Your task to perform on an android device: set default search engine in the chrome app Image 0: 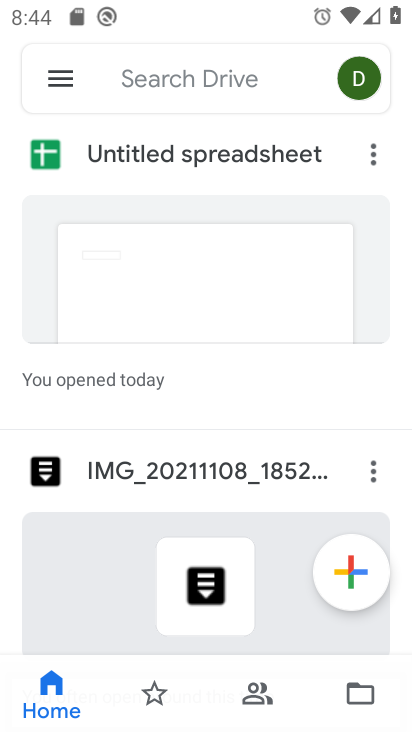
Step 0: press home button
Your task to perform on an android device: set default search engine in the chrome app Image 1: 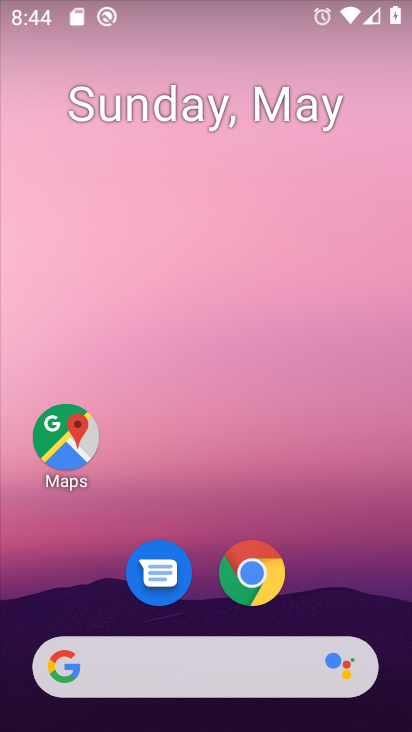
Step 1: drag from (199, 508) to (274, 41)
Your task to perform on an android device: set default search engine in the chrome app Image 2: 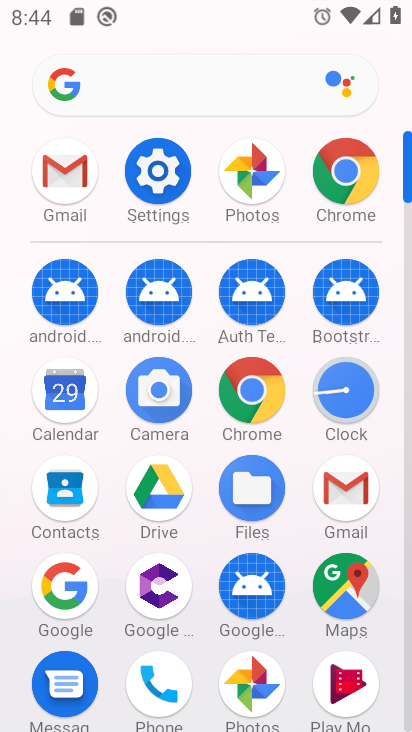
Step 2: click (345, 181)
Your task to perform on an android device: set default search engine in the chrome app Image 3: 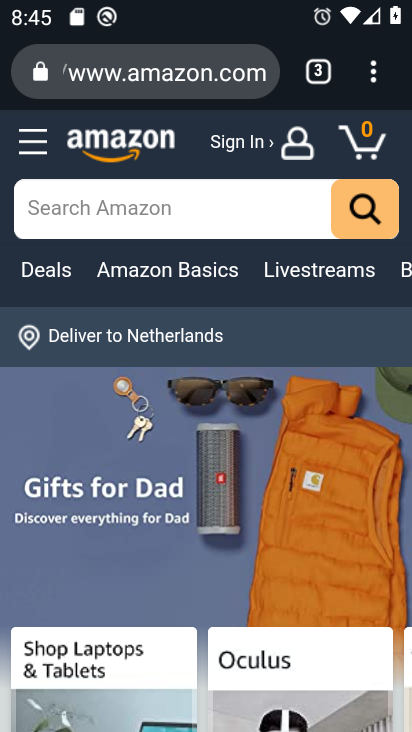
Step 3: click (35, 139)
Your task to perform on an android device: set default search engine in the chrome app Image 4: 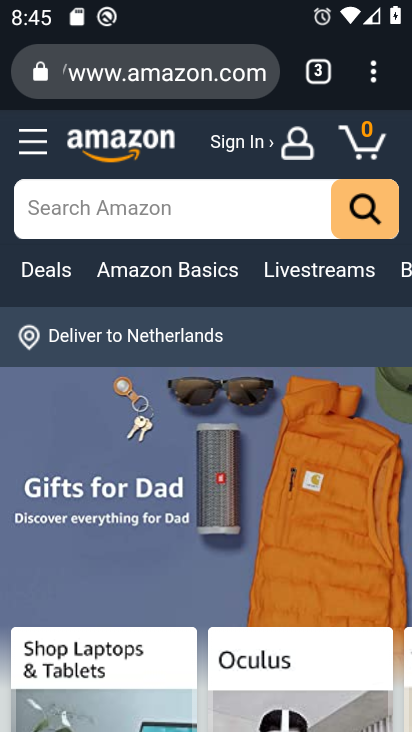
Step 4: click (372, 84)
Your task to perform on an android device: set default search engine in the chrome app Image 5: 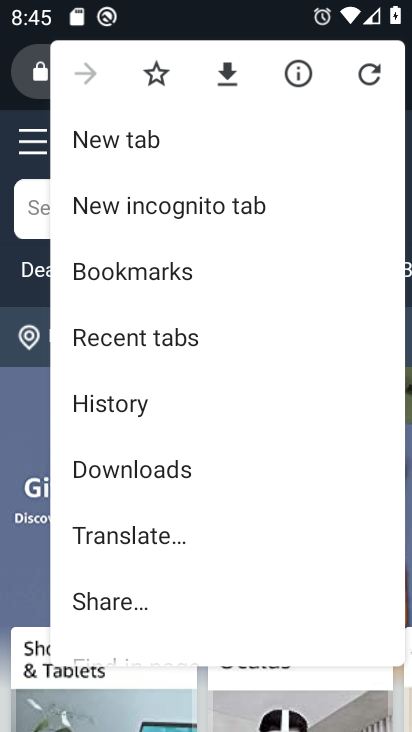
Step 5: drag from (225, 525) to (223, 101)
Your task to perform on an android device: set default search engine in the chrome app Image 6: 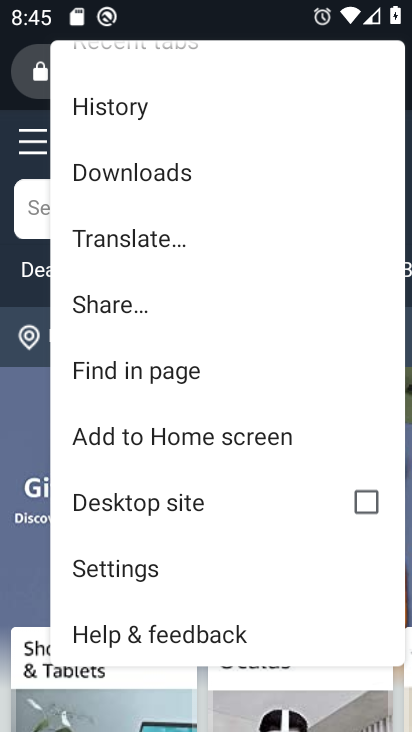
Step 6: click (137, 573)
Your task to perform on an android device: set default search engine in the chrome app Image 7: 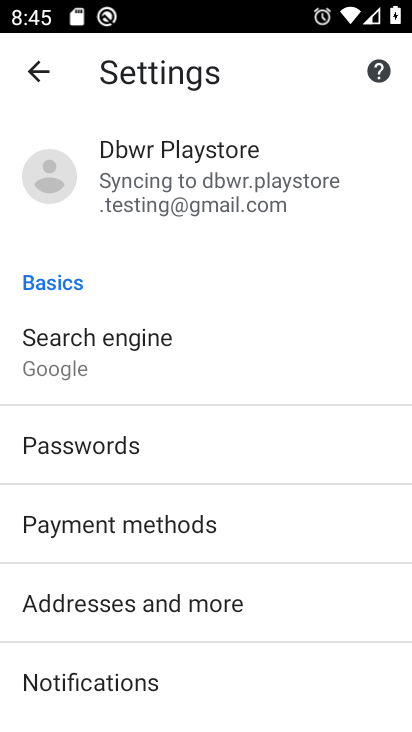
Step 7: drag from (191, 645) to (212, 192)
Your task to perform on an android device: set default search engine in the chrome app Image 8: 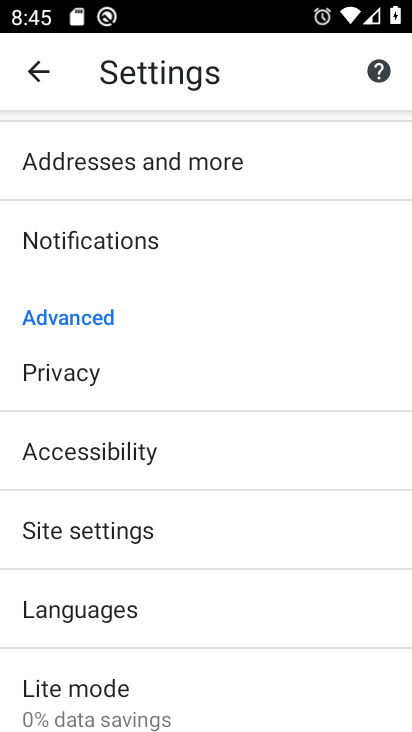
Step 8: drag from (207, 352) to (164, 731)
Your task to perform on an android device: set default search engine in the chrome app Image 9: 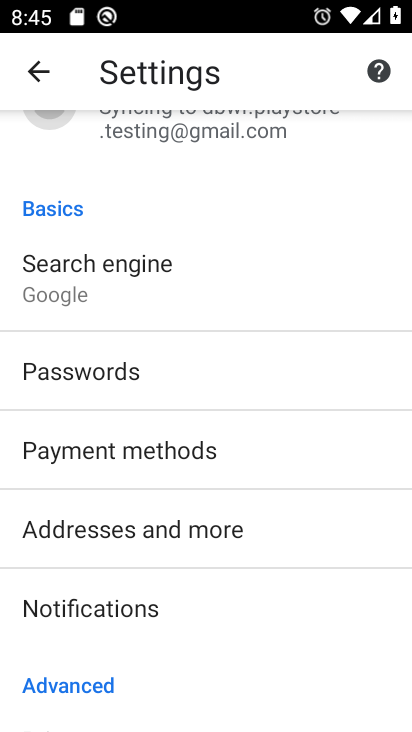
Step 9: click (166, 292)
Your task to perform on an android device: set default search engine in the chrome app Image 10: 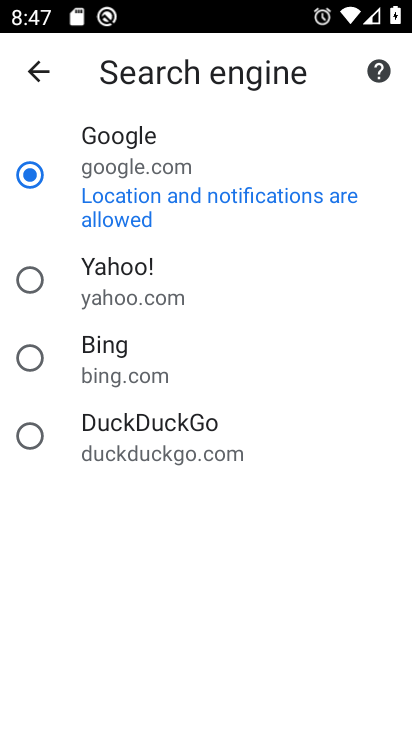
Step 10: task complete